Your task to perform on an android device: uninstall "PUBG MOBILE" Image 0: 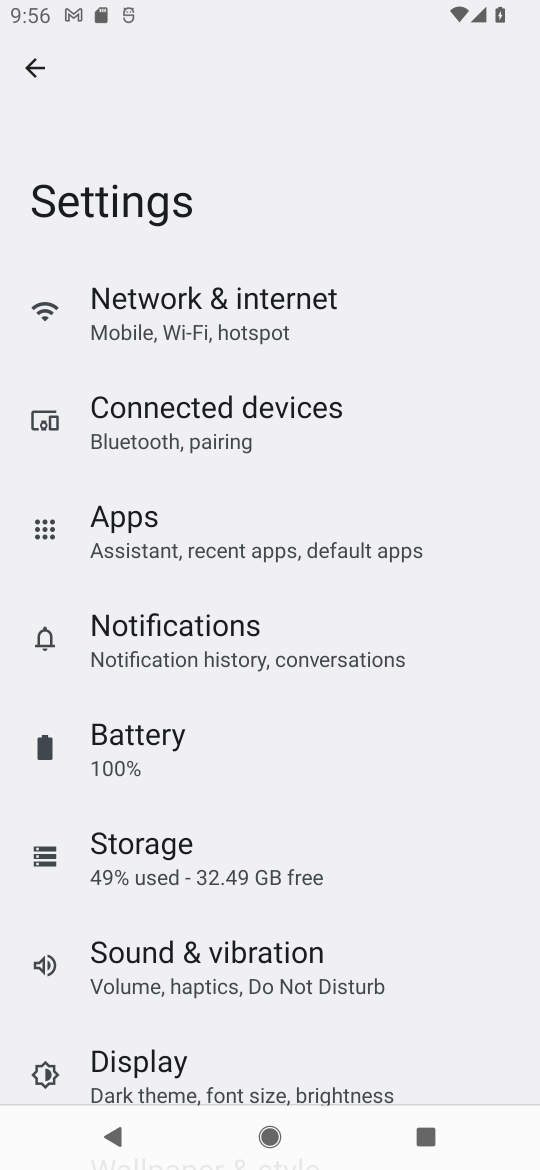
Step 0: press home button
Your task to perform on an android device: uninstall "PUBG MOBILE" Image 1: 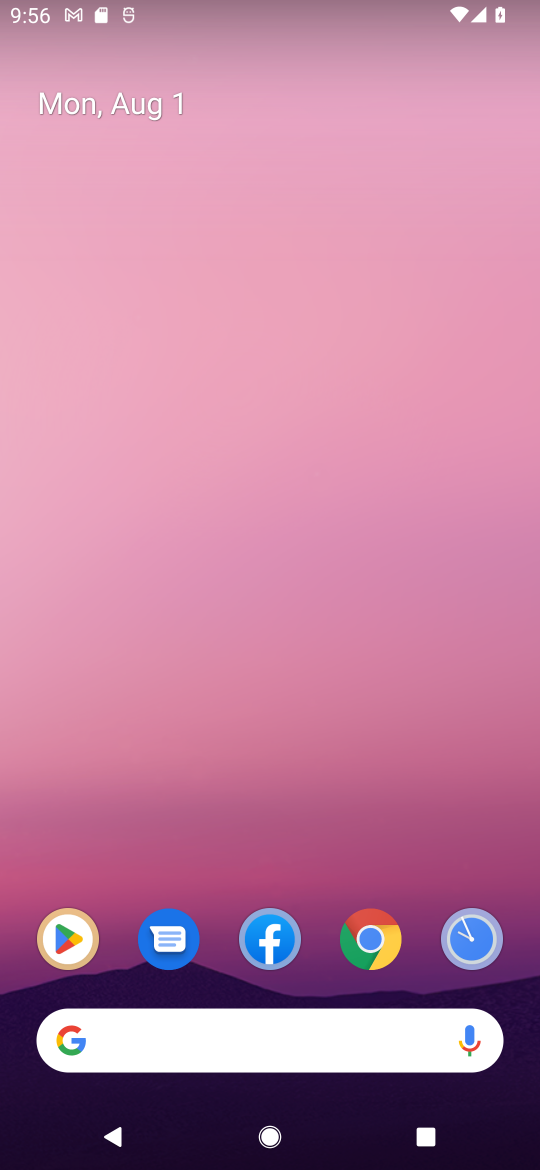
Step 1: click (67, 929)
Your task to perform on an android device: uninstall "PUBG MOBILE" Image 2: 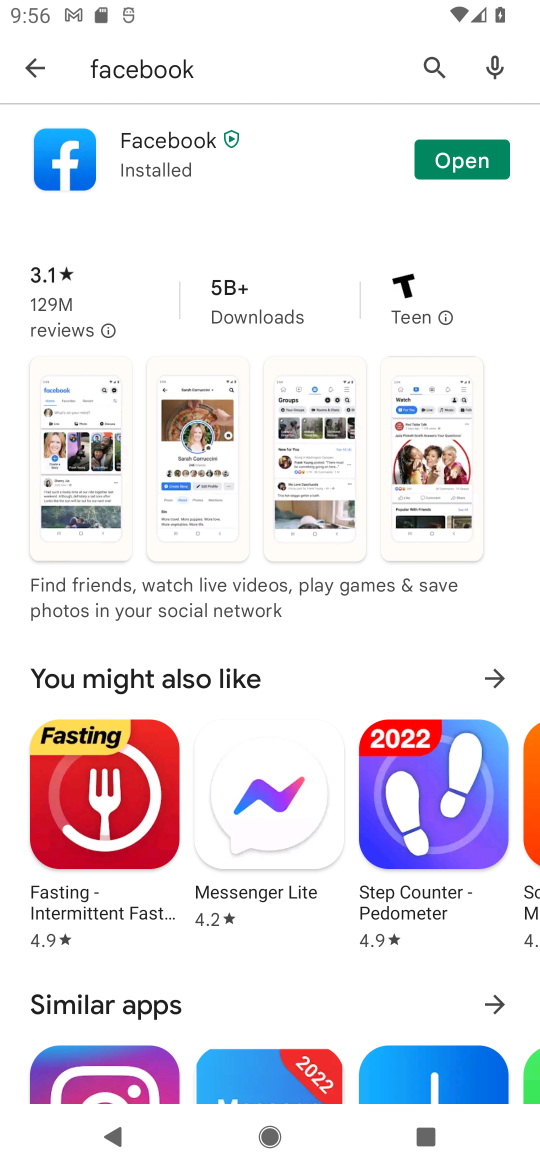
Step 2: click (421, 65)
Your task to perform on an android device: uninstall "PUBG MOBILE" Image 3: 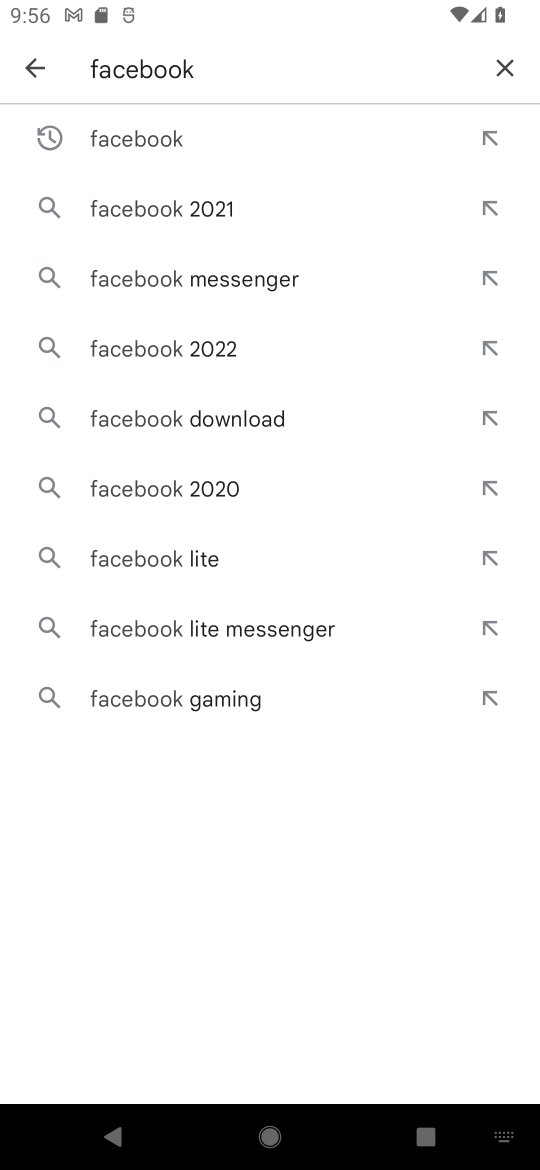
Step 3: click (505, 69)
Your task to perform on an android device: uninstall "PUBG MOBILE" Image 4: 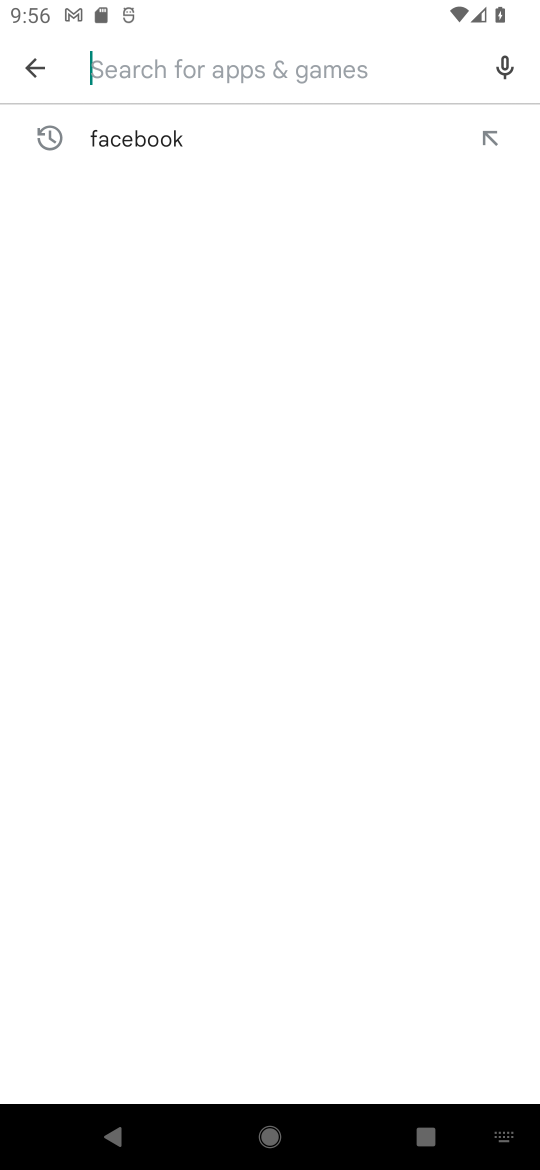
Step 4: type "pubg mobile"
Your task to perform on an android device: uninstall "PUBG MOBILE" Image 5: 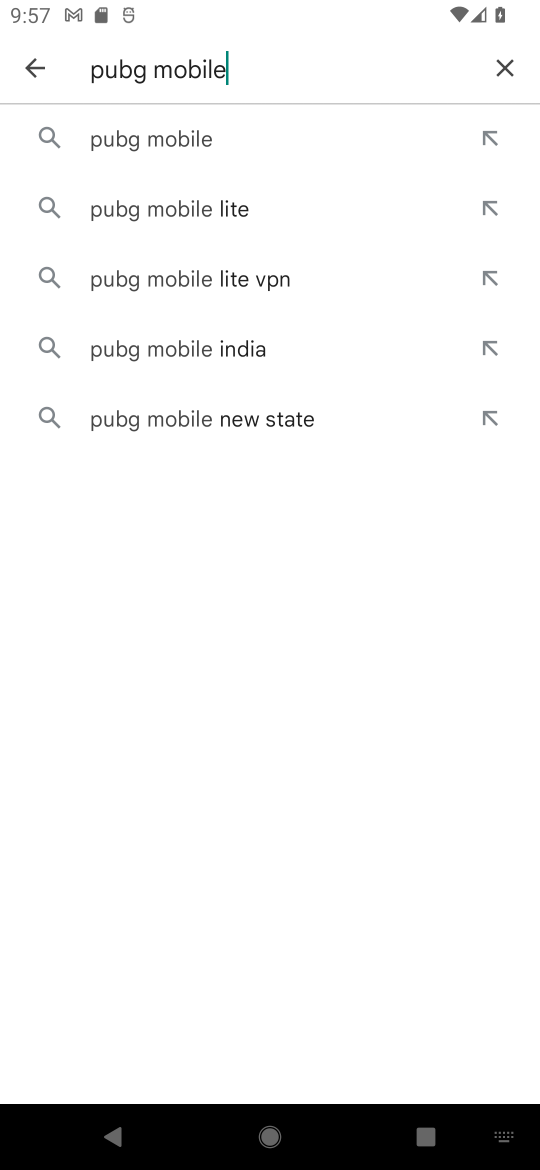
Step 5: click (284, 133)
Your task to perform on an android device: uninstall "PUBG MOBILE" Image 6: 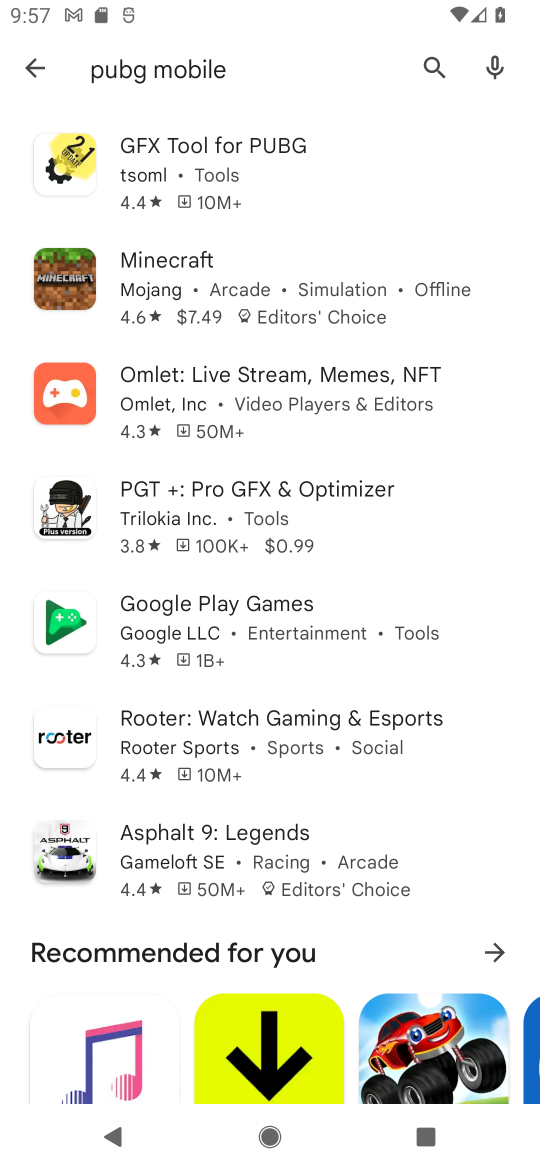
Step 6: task complete